Your task to perform on an android device: Open maps Image 0: 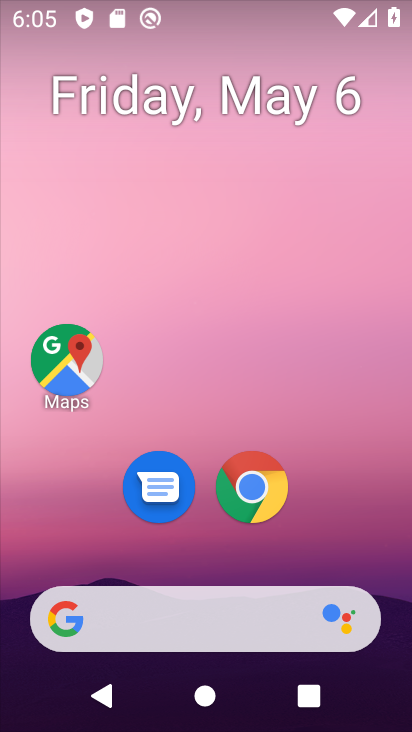
Step 0: click (81, 354)
Your task to perform on an android device: Open maps Image 1: 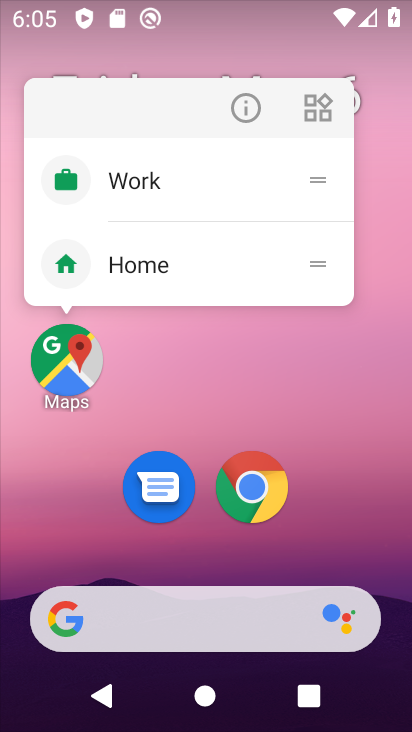
Step 1: click (89, 363)
Your task to perform on an android device: Open maps Image 2: 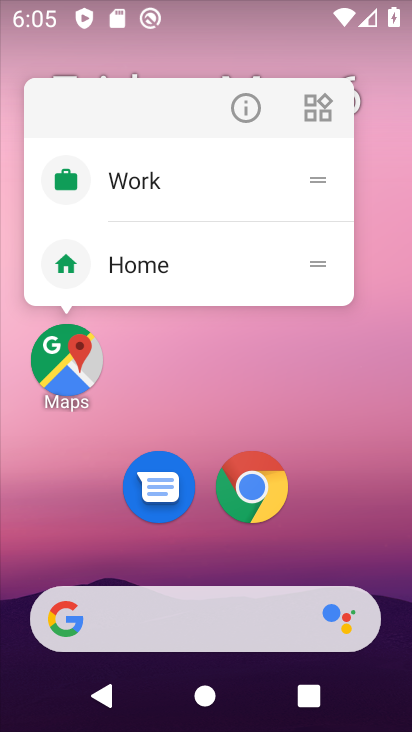
Step 2: click (330, 411)
Your task to perform on an android device: Open maps Image 3: 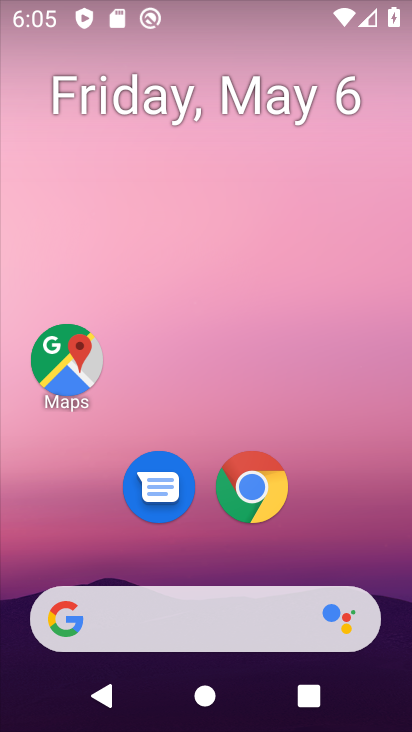
Step 3: drag from (344, 504) to (409, 163)
Your task to perform on an android device: Open maps Image 4: 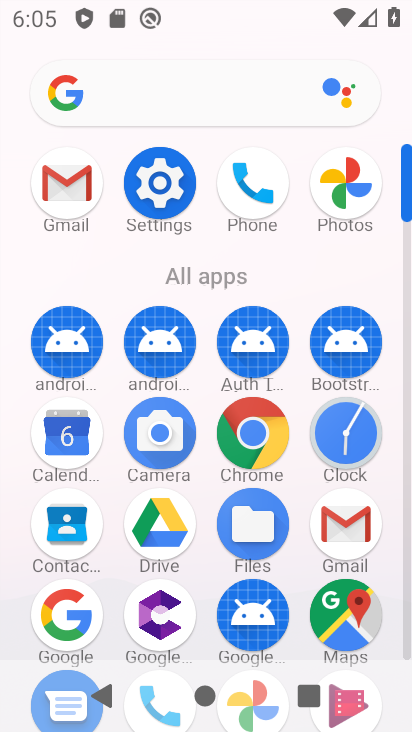
Step 4: drag from (298, 304) to (353, 118)
Your task to perform on an android device: Open maps Image 5: 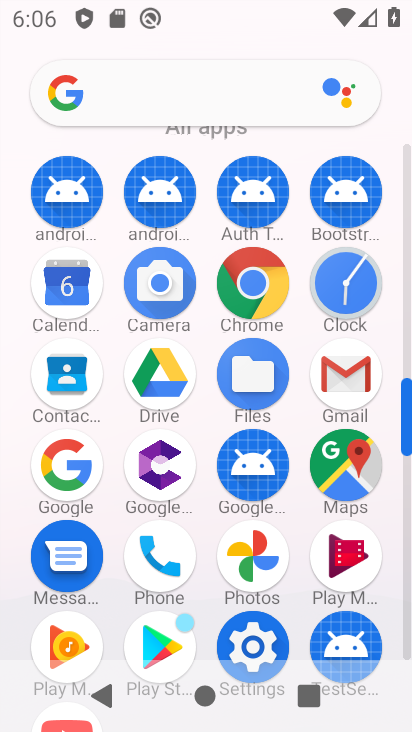
Step 5: click (339, 476)
Your task to perform on an android device: Open maps Image 6: 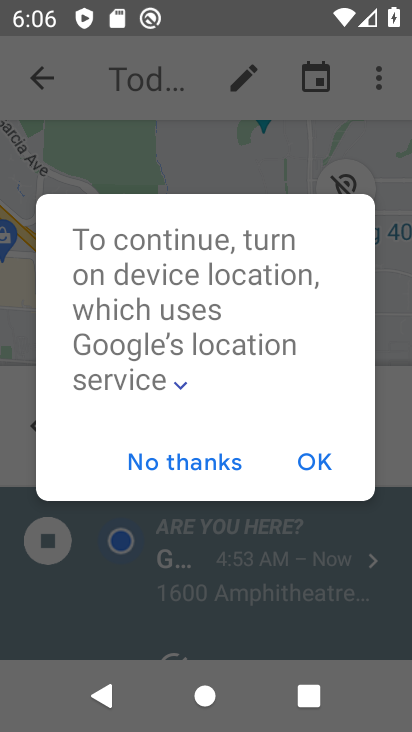
Step 6: click (311, 454)
Your task to perform on an android device: Open maps Image 7: 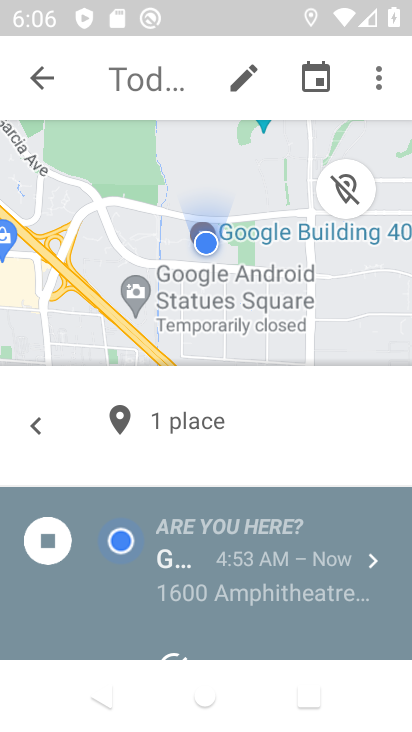
Step 7: task complete